Your task to perform on an android device: Open display settings Image 0: 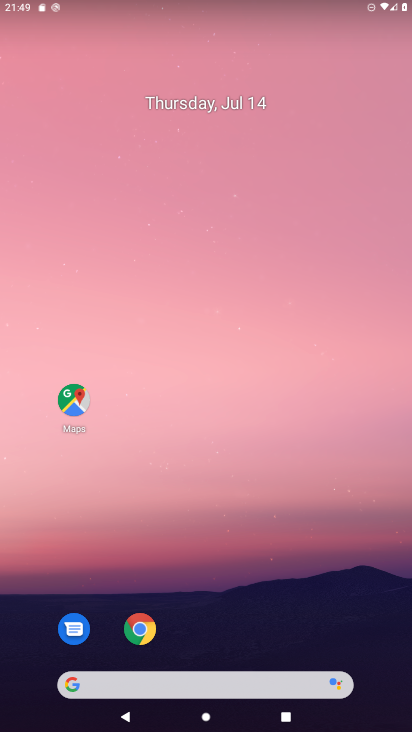
Step 0: drag from (237, 606) to (241, 146)
Your task to perform on an android device: Open display settings Image 1: 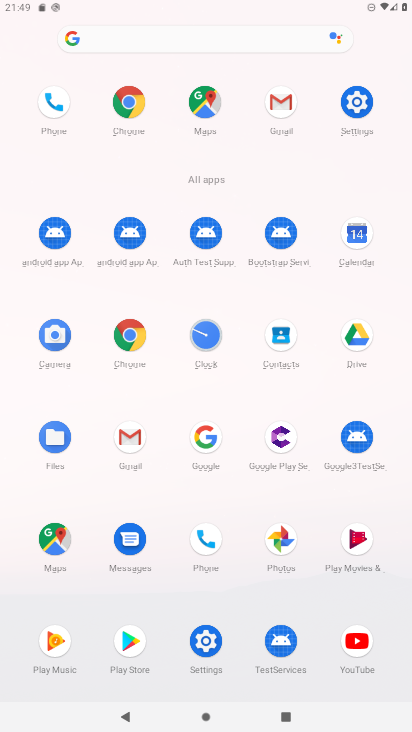
Step 1: click (362, 91)
Your task to perform on an android device: Open display settings Image 2: 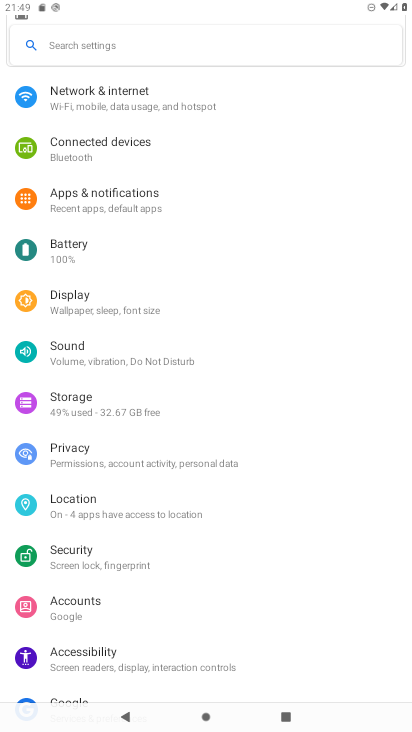
Step 2: click (87, 282)
Your task to perform on an android device: Open display settings Image 3: 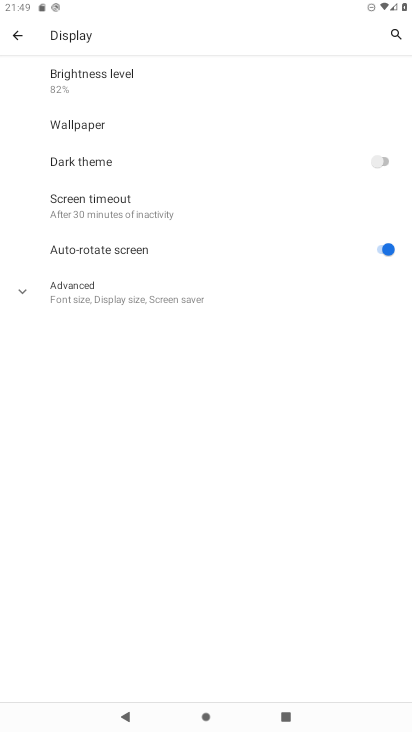
Step 3: task complete